Your task to perform on an android device: Is it going to rain today? Image 0: 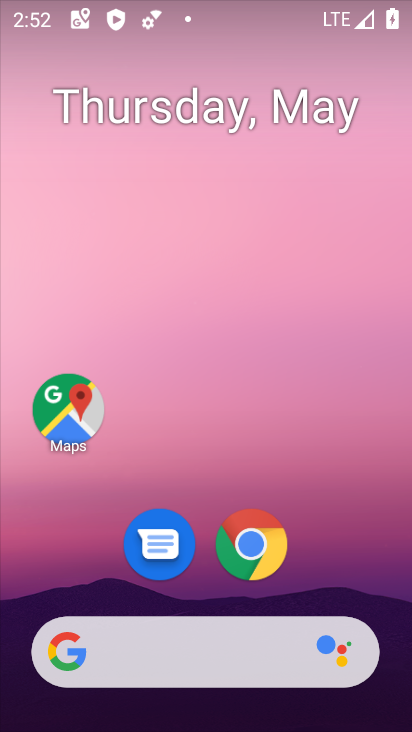
Step 0: click (223, 646)
Your task to perform on an android device: Is it going to rain today? Image 1: 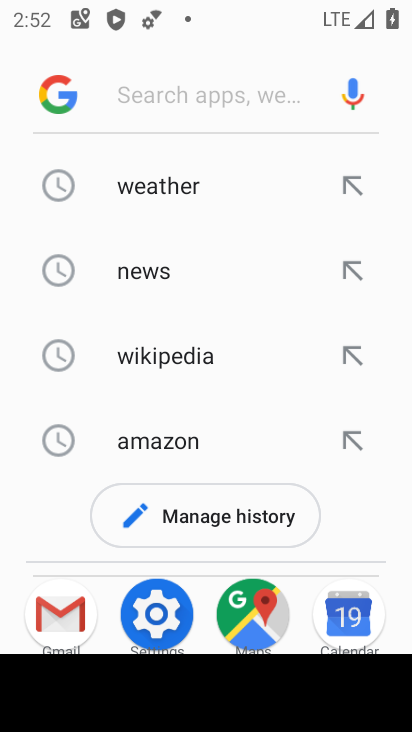
Step 1: type "Is it going to rain today?"
Your task to perform on an android device: Is it going to rain today? Image 2: 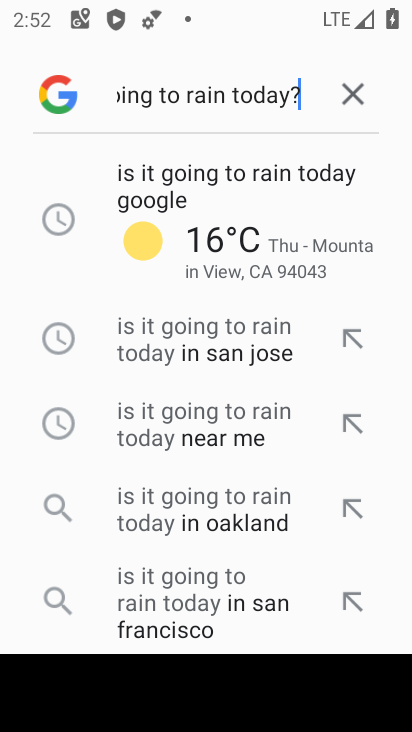
Step 2: click (206, 155)
Your task to perform on an android device: Is it going to rain today? Image 3: 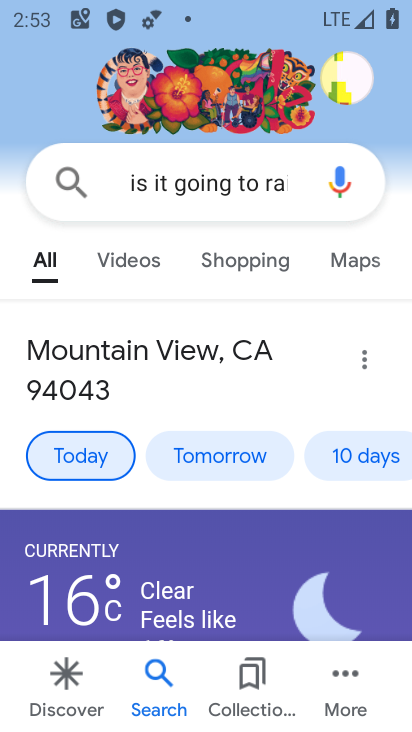
Step 3: task complete